Your task to perform on an android device: open device folders in google photos Image 0: 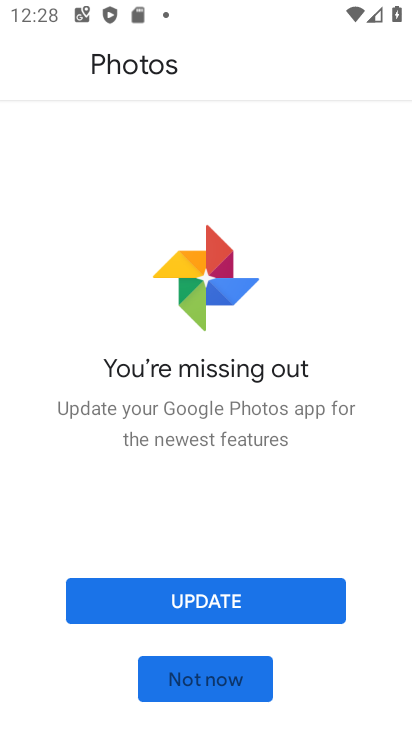
Step 0: press home button
Your task to perform on an android device: open device folders in google photos Image 1: 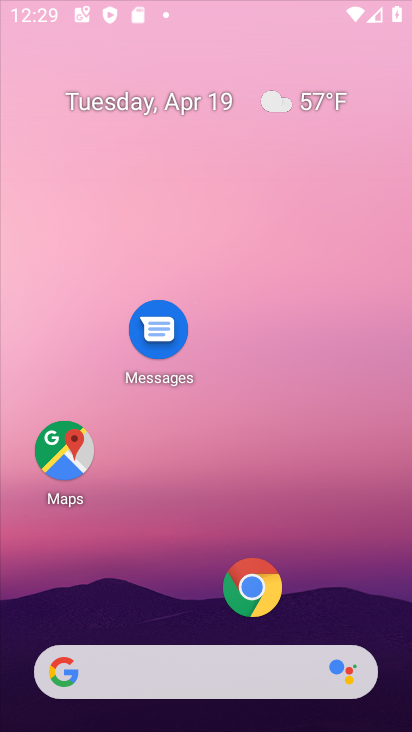
Step 1: drag from (183, 540) to (189, 138)
Your task to perform on an android device: open device folders in google photos Image 2: 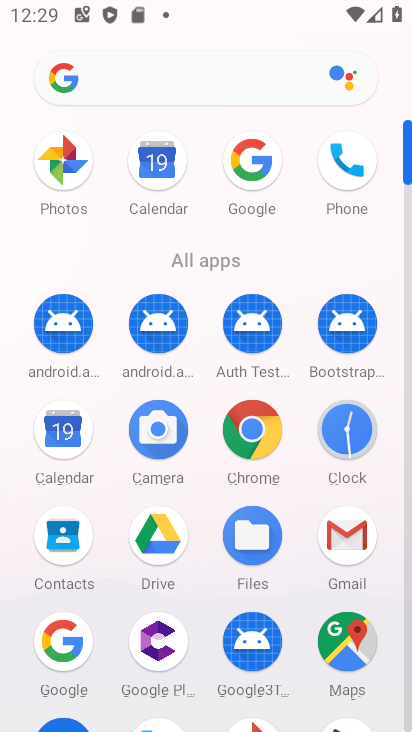
Step 2: drag from (207, 597) to (180, 461)
Your task to perform on an android device: open device folders in google photos Image 3: 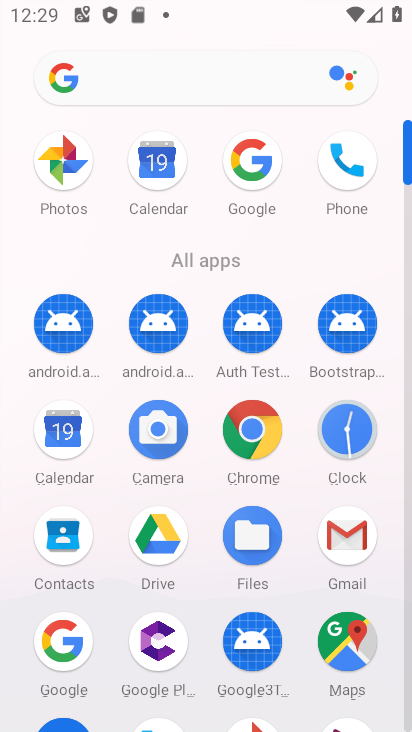
Step 3: click (61, 161)
Your task to perform on an android device: open device folders in google photos Image 4: 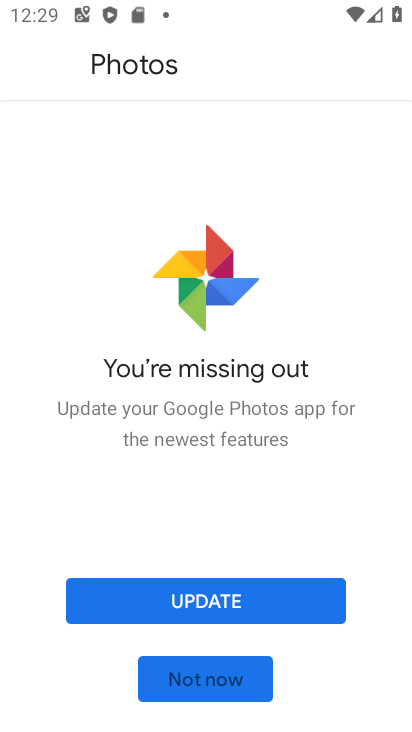
Step 4: click (224, 677)
Your task to perform on an android device: open device folders in google photos Image 5: 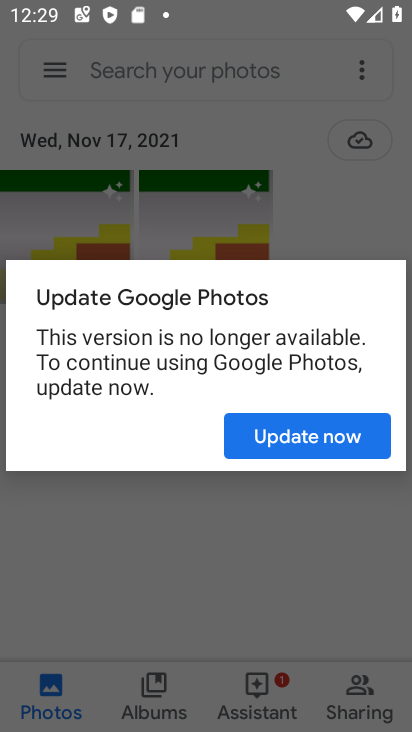
Step 5: click (292, 435)
Your task to perform on an android device: open device folders in google photos Image 6: 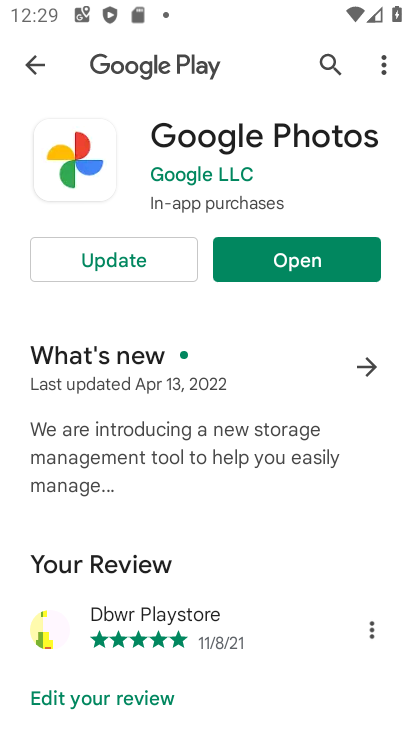
Step 6: click (272, 251)
Your task to perform on an android device: open device folders in google photos Image 7: 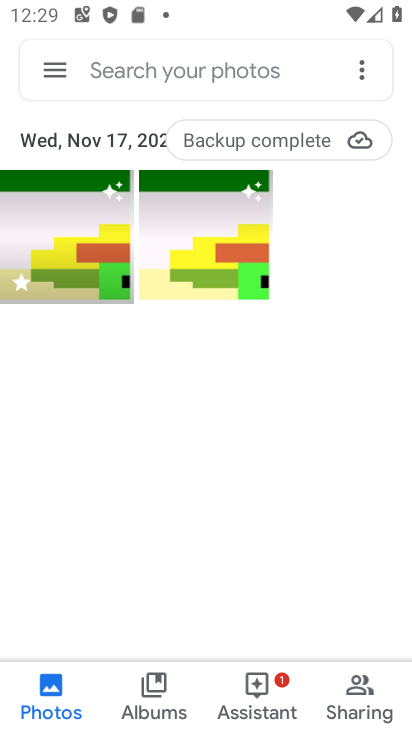
Step 7: click (52, 66)
Your task to perform on an android device: open device folders in google photos Image 8: 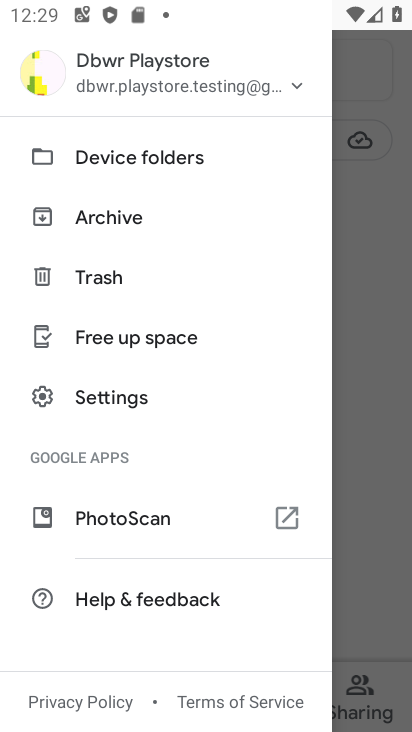
Step 8: click (96, 162)
Your task to perform on an android device: open device folders in google photos Image 9: 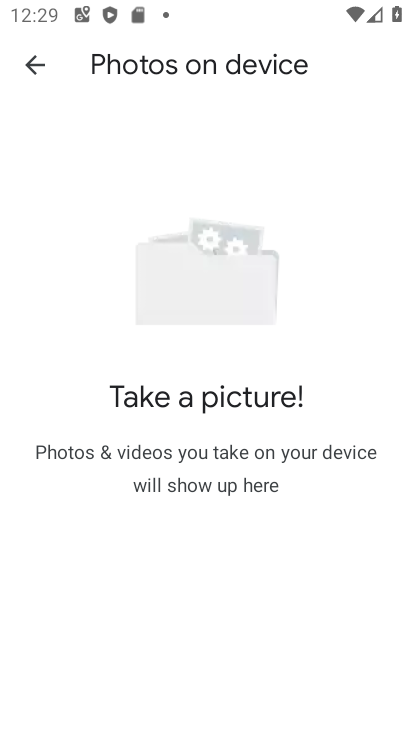
Step 9: task complete